Your task to perform on an android device: toggle sleep mode Image 0: 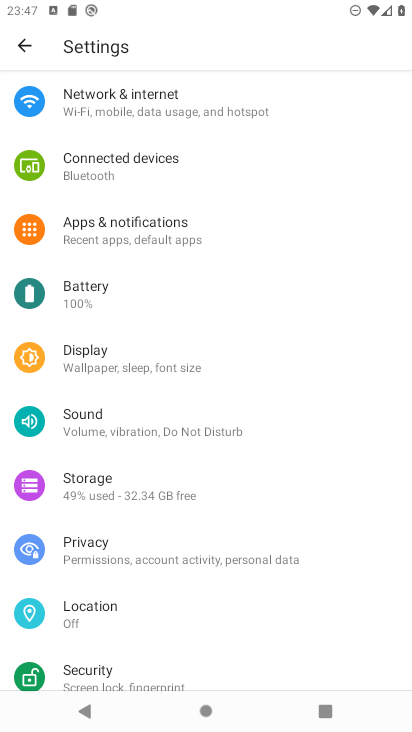
Step 0: press home button
Your task to perform on an android device: toggle sleep mode Image 1: 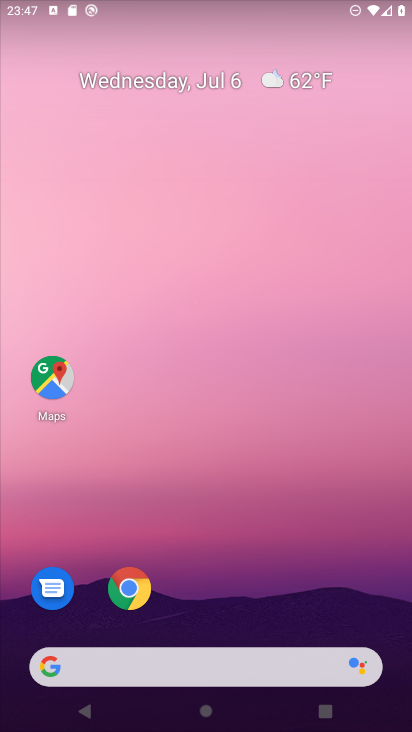
Step 1: drag from (360, 620) to (326, 6)
Your task to perform on an android device: toggle sleep mode Image 2: 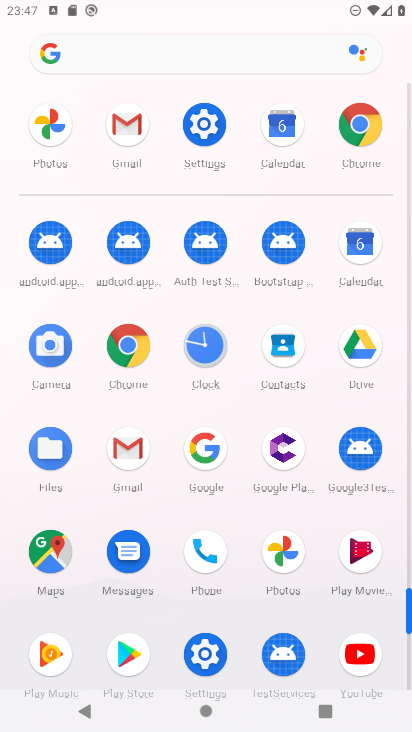
Step 2: click (205, 650)
Your task to perform on an android device: toggle sleep mode Image 3: 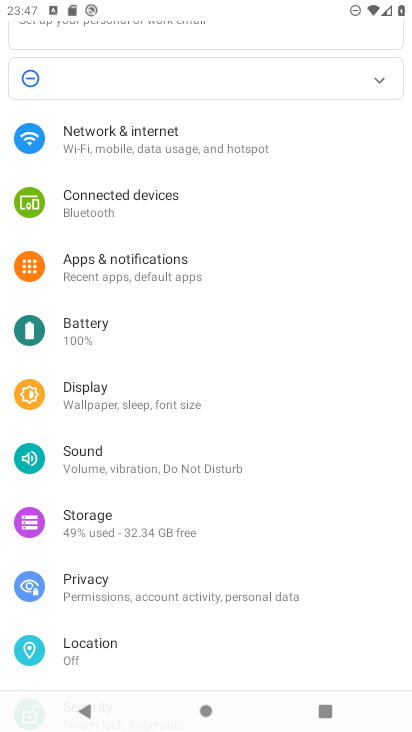
Step 3: click (103, 397)
Your task to perform on an android device: toggle sleep mode Image 4: 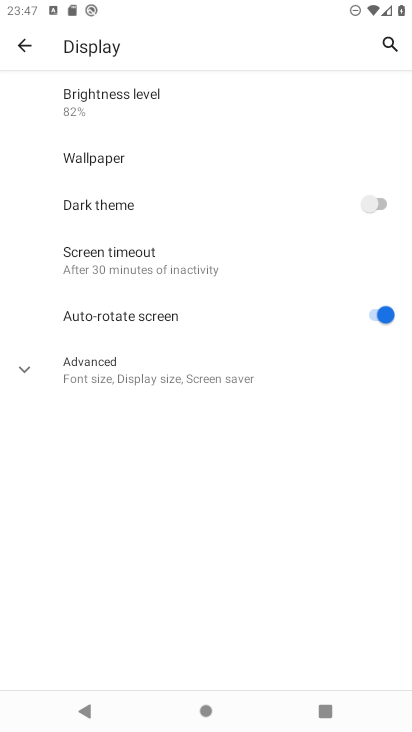
Step 4: click (26, 366)
Your task to perform on an android device: toggle sleep mode Image 5: 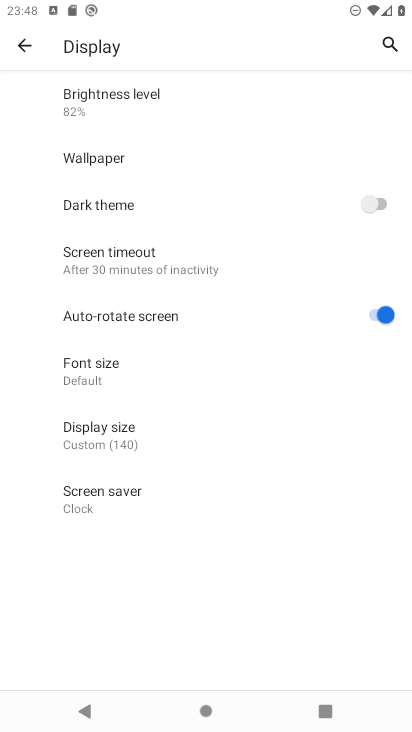
Step 5: task complete